Your task to perform on an android device: add a label to a message in the gmail app Image 0: 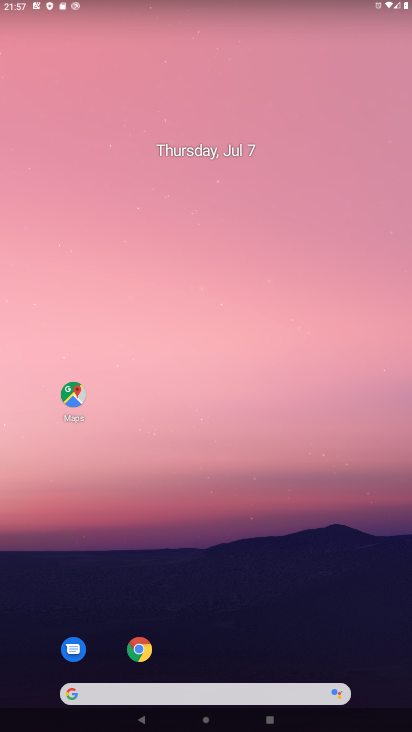
Step 0: drag from (224, 725) to (236, 261)
Your task to perform on an android device: add a label to a message in the gmail app Image 1: 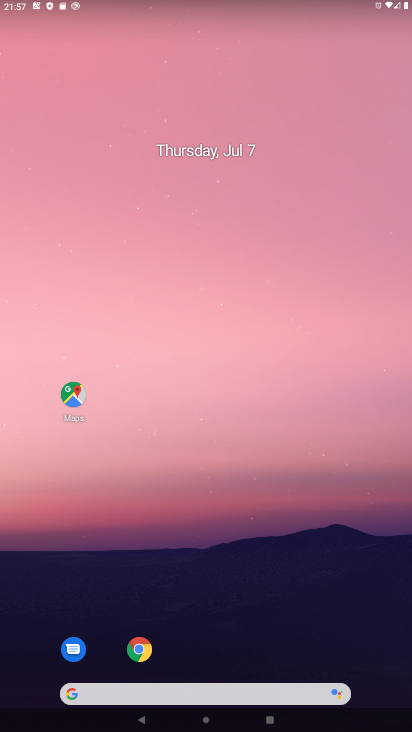
Step 1: drag from (232, 719) to (245, 0)
Your task to perform on an android device: add a label to a message in the gmail app Image 2: 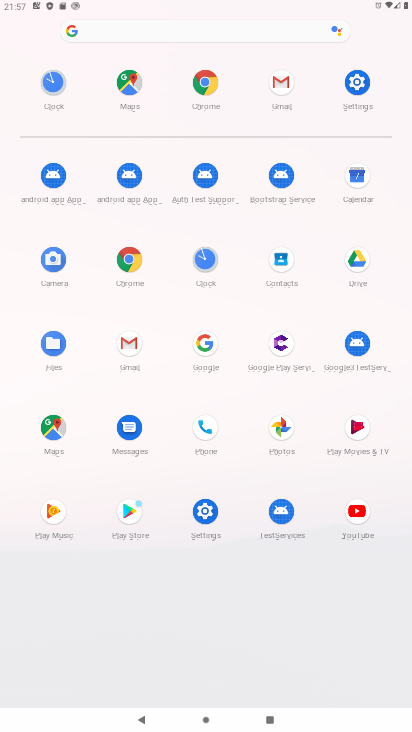
Step 2: click (130, 340)
Your task to perform on an android device: add a label to a message in the gmail app Image 3: 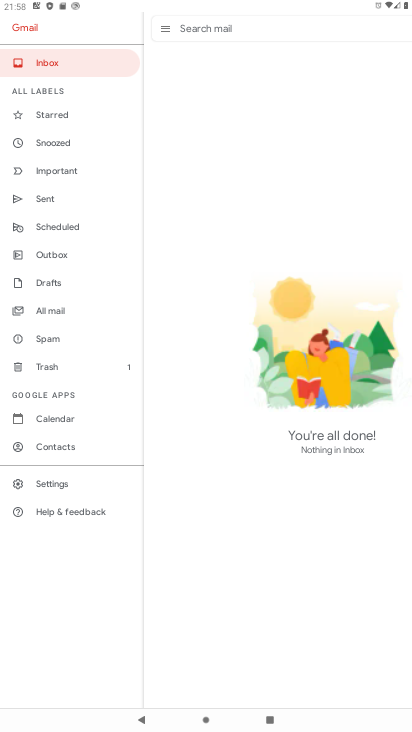
Step 3: task complete